Your task to perform on an android device: search for starred emails in the gmail app Image 0: 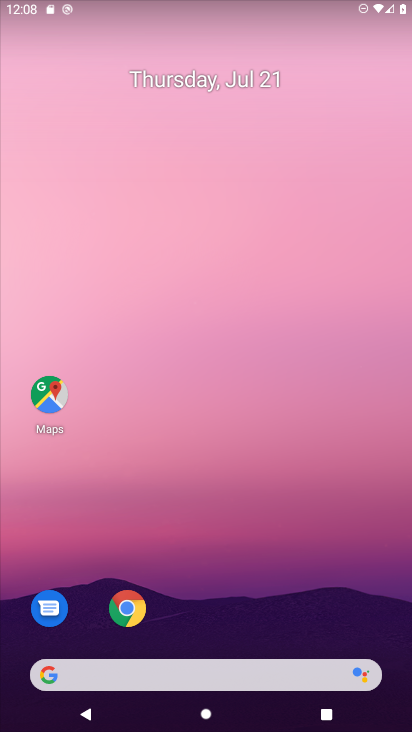
Step 0: drag from (225, 643) to (194, 52)
Your task to perform on an android device: search for starred emails in the gmail app Image 1: 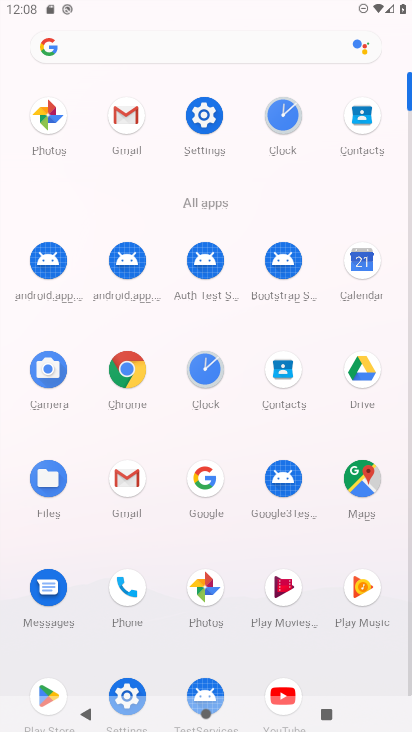
Step 1: click (132, 480)
Your task to perform on an android device: search for starred emails in the gmail app Image 2: 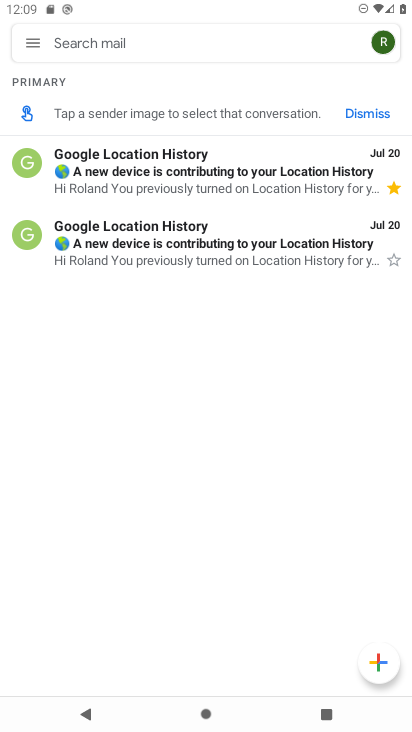
Step 2: click (29, 49)
Your task to perform on an android device: search for starred emails in the gmail app Image 3: 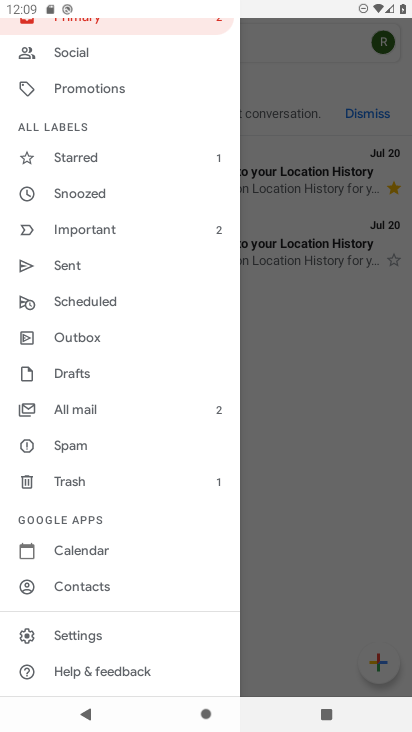
Step 3: click (78, 162)
Your task to perform on an android device: search for starred emails in the gmail app Image 4: 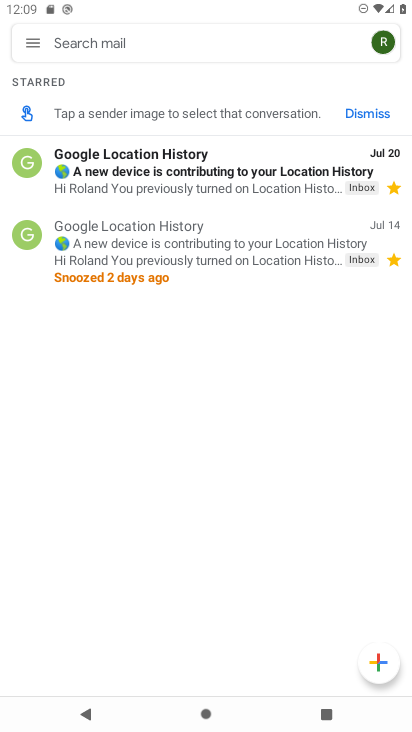
Step 4: task complete